Your task to perform on an android device: toggle location history Image 0: 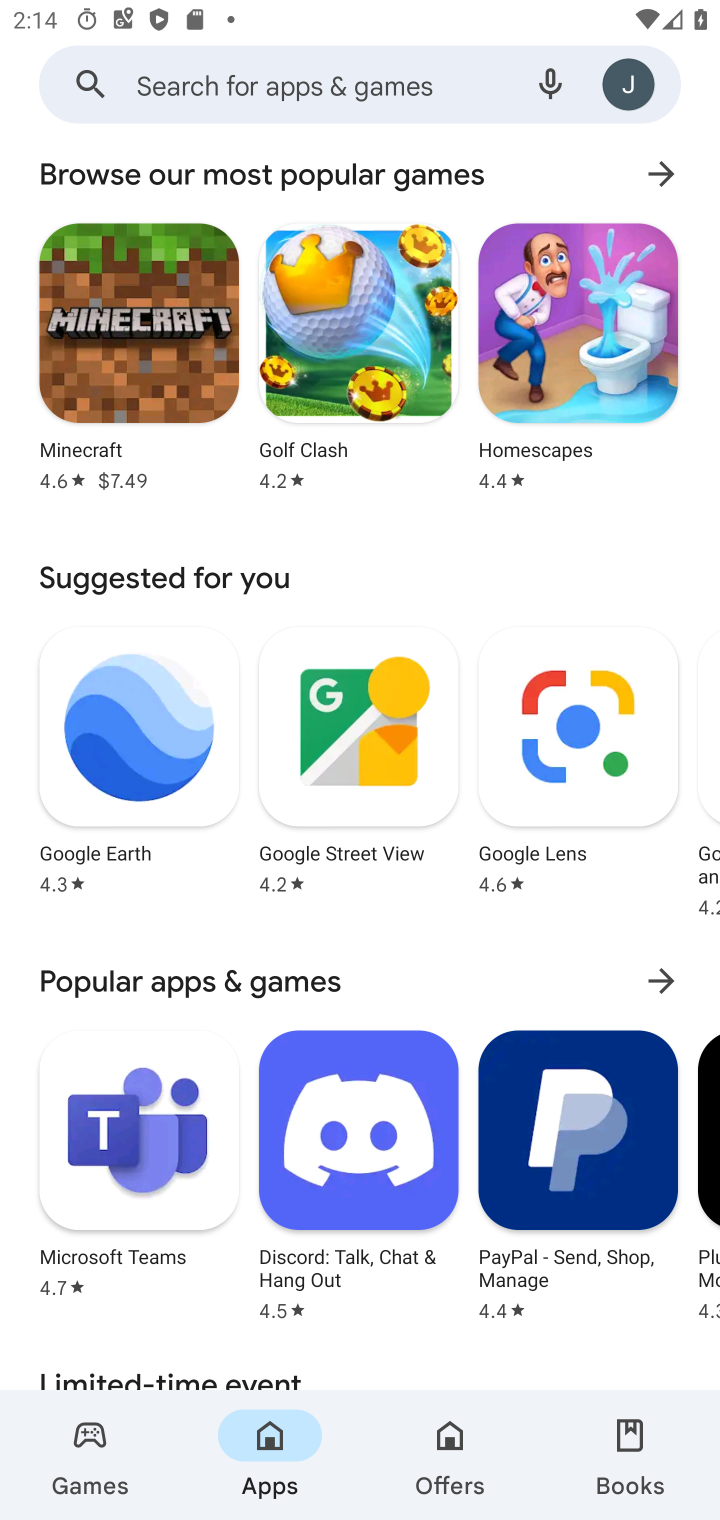
Step 0: press home button
Your task to perform on an android device: toggle location history Image 1: 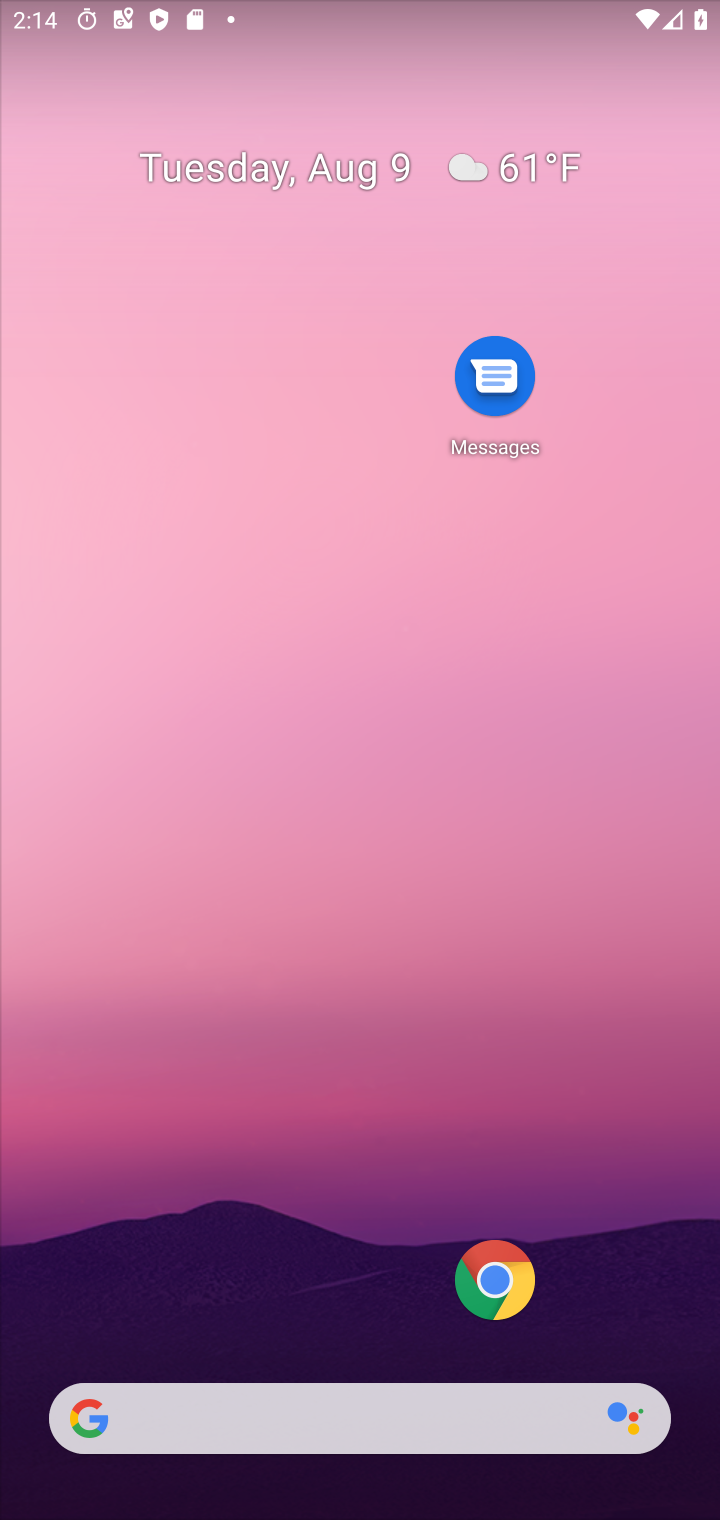
Step 1: drag from (388, 1161) to (451, 399)
Your task to perform on an android device: toggle location history Image 2: 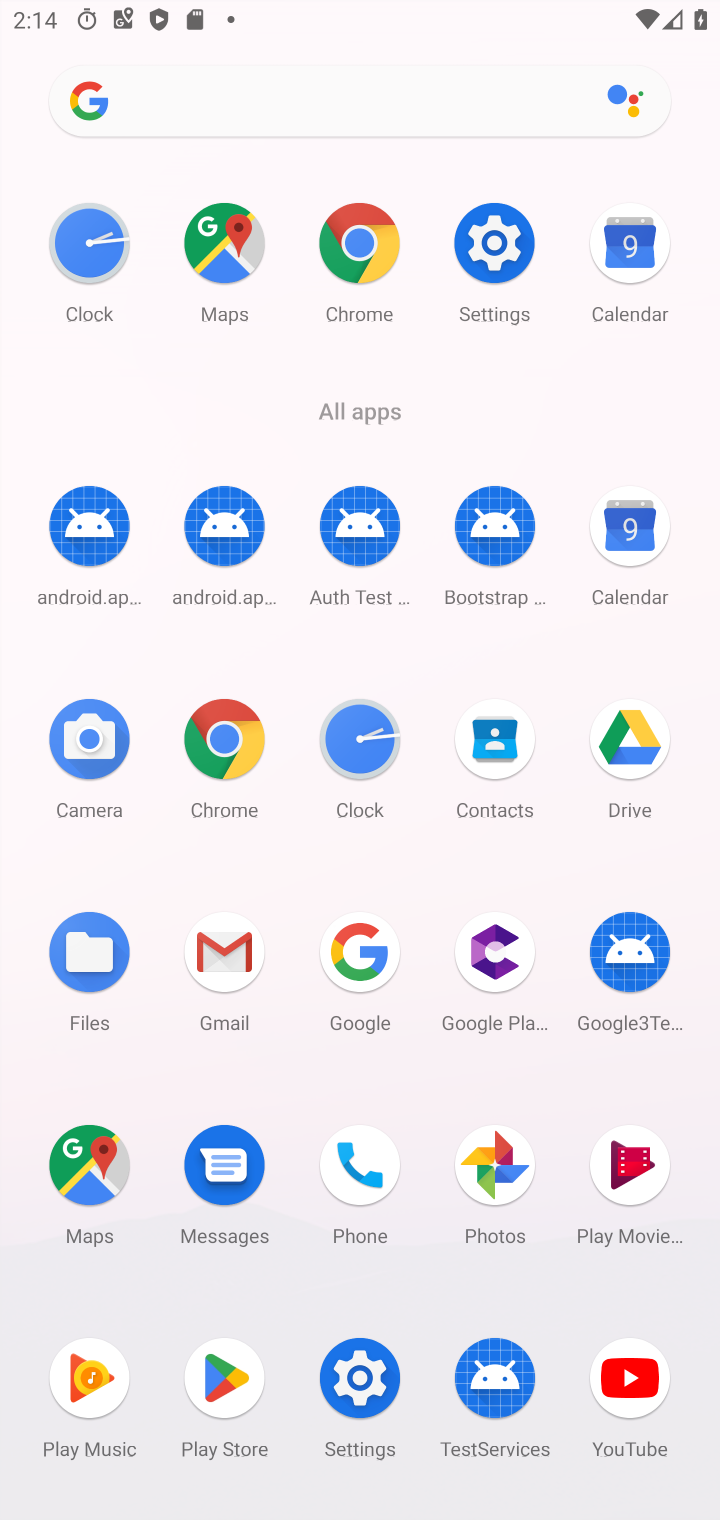
Step 2: click (222, 235)
Your task to perform on an android device: toggle location history Image 3: 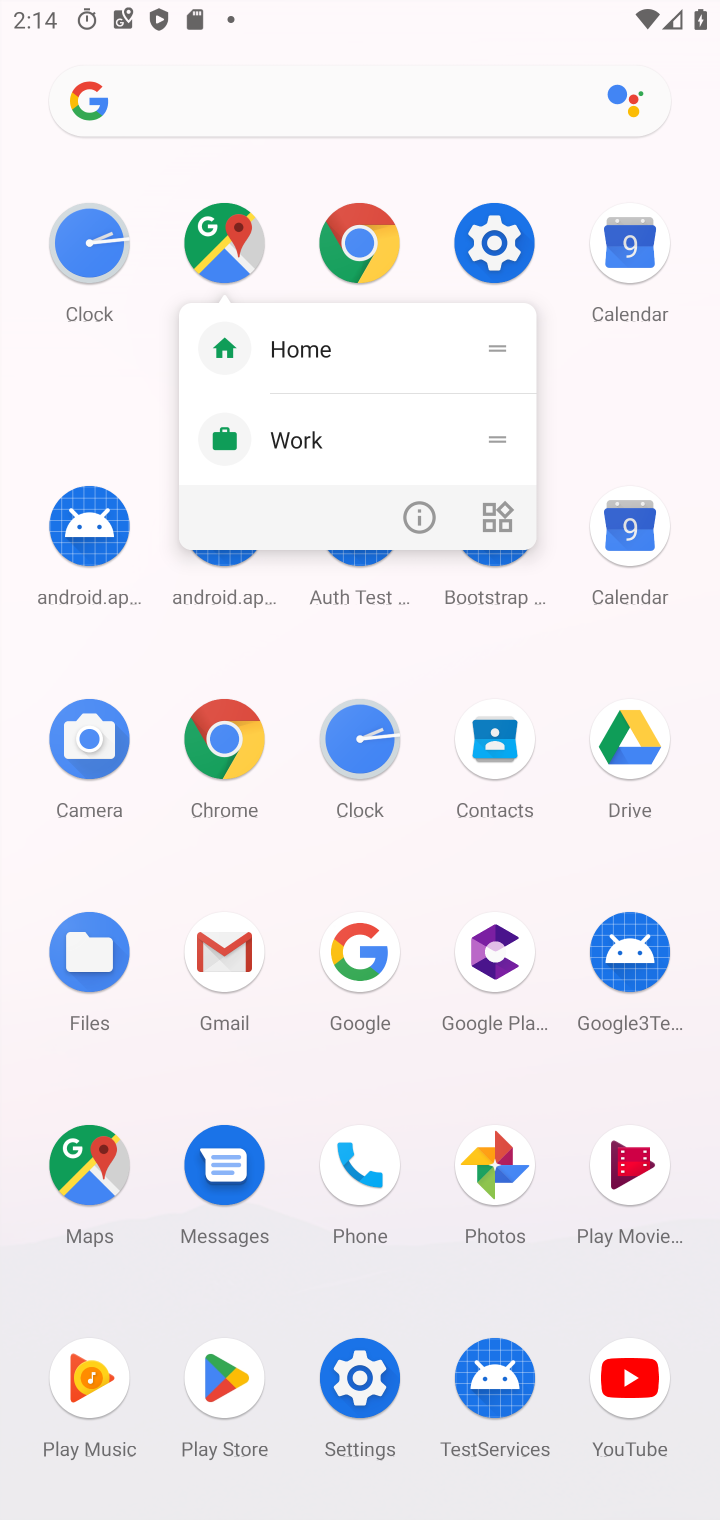
Step 3: click (222, 235)
Your task to perform on an android device: toggle location history Image 4: 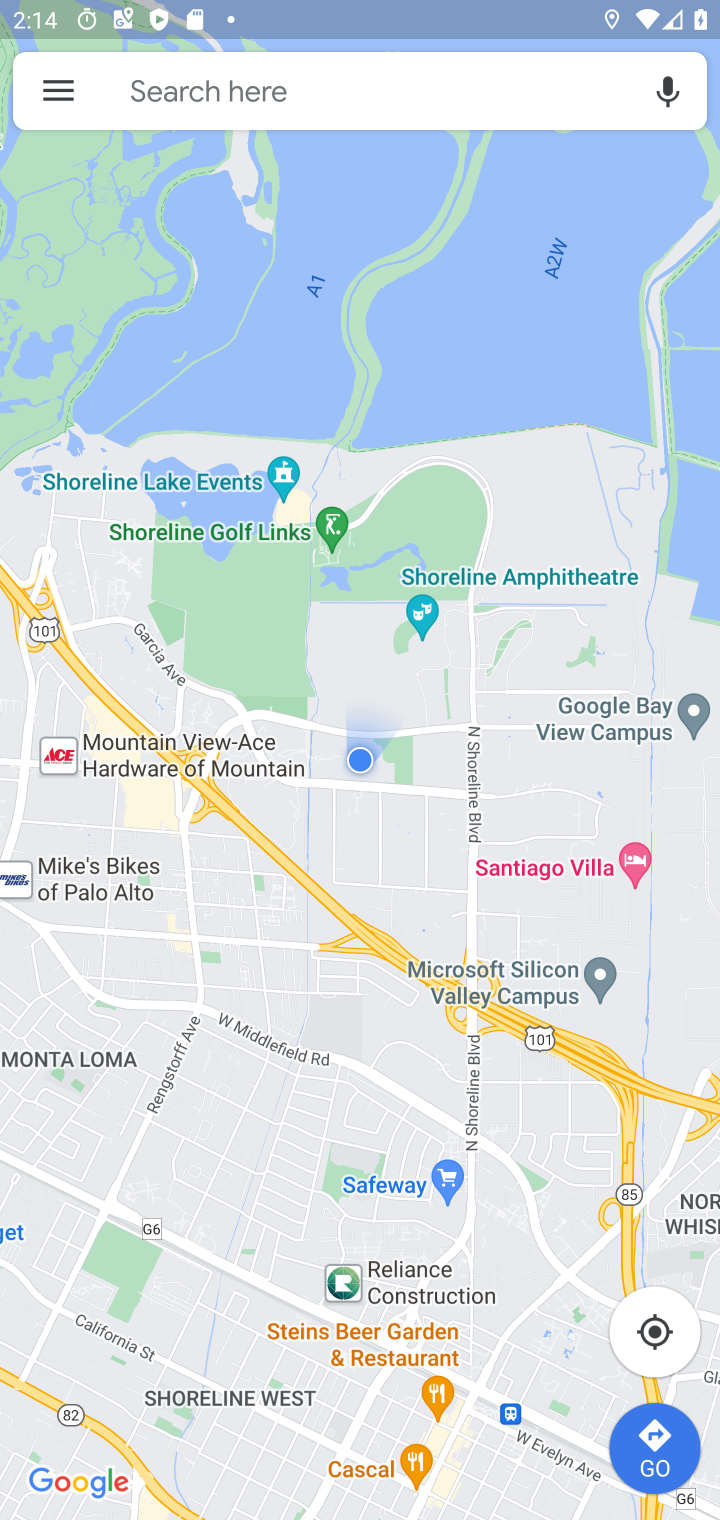
Step 4: click (69, 88)
Your task to perform on an android device: toggle location history Image 5: 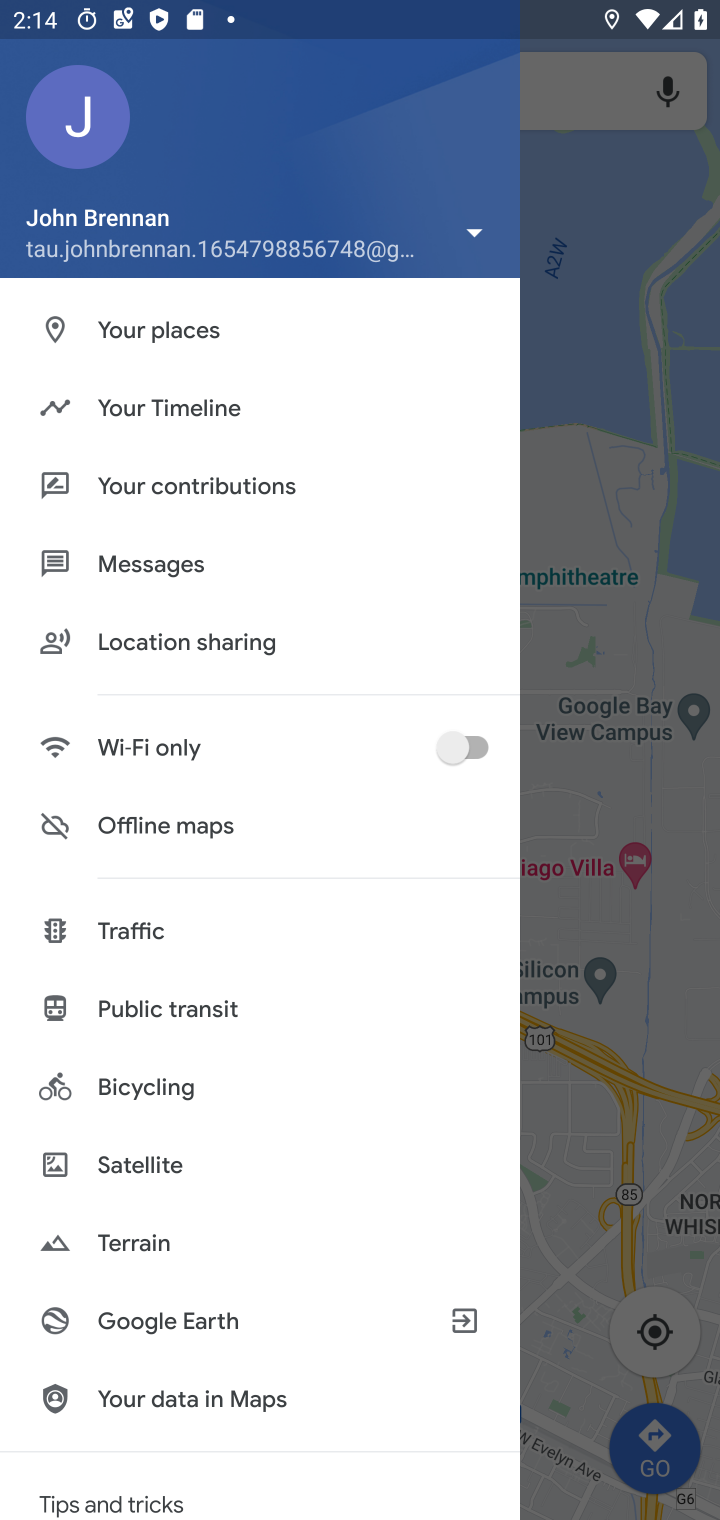
Step 5: click (205, 393)
Your task to perform on an android device: toggle location history Image 6: 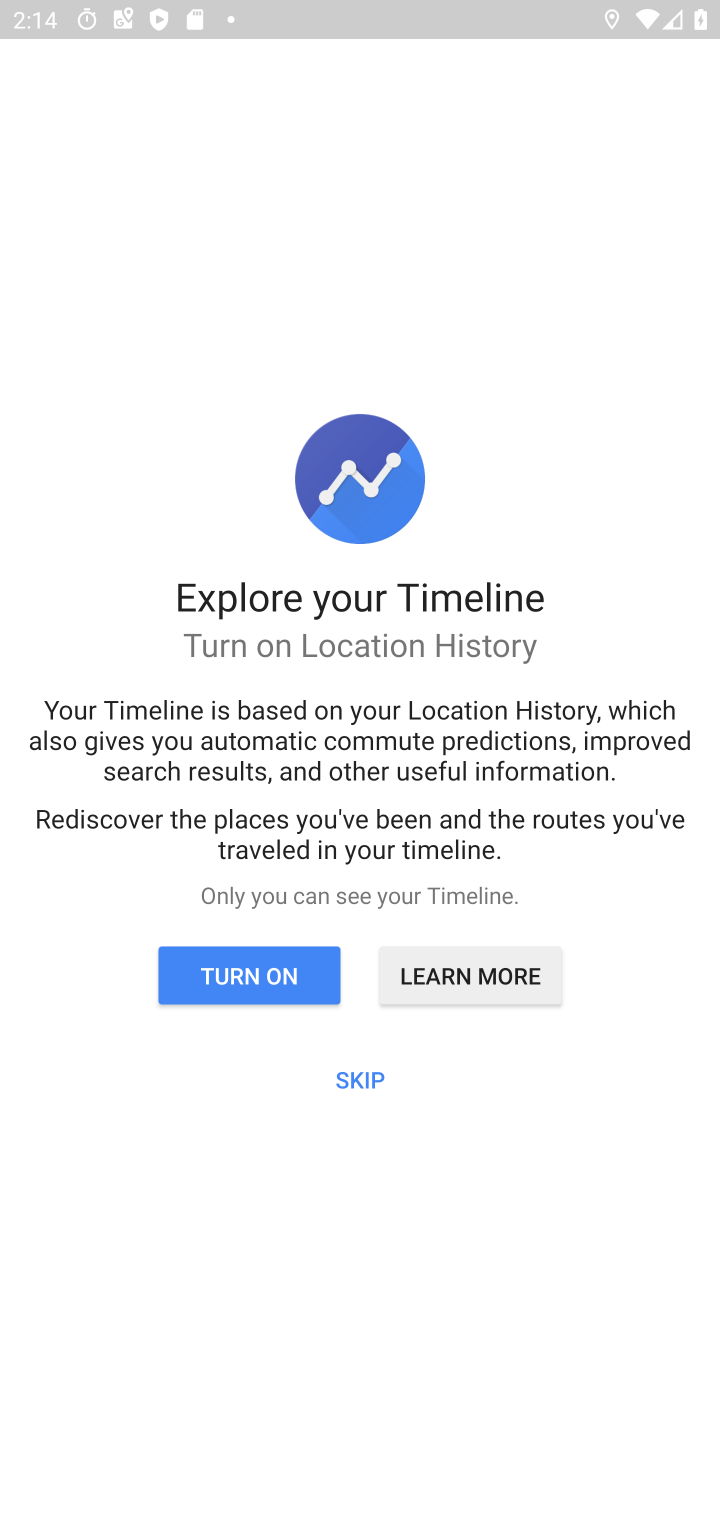
Step 6: click (343, 1055)
Your task to perform on an android device: toggle location history Image 7: 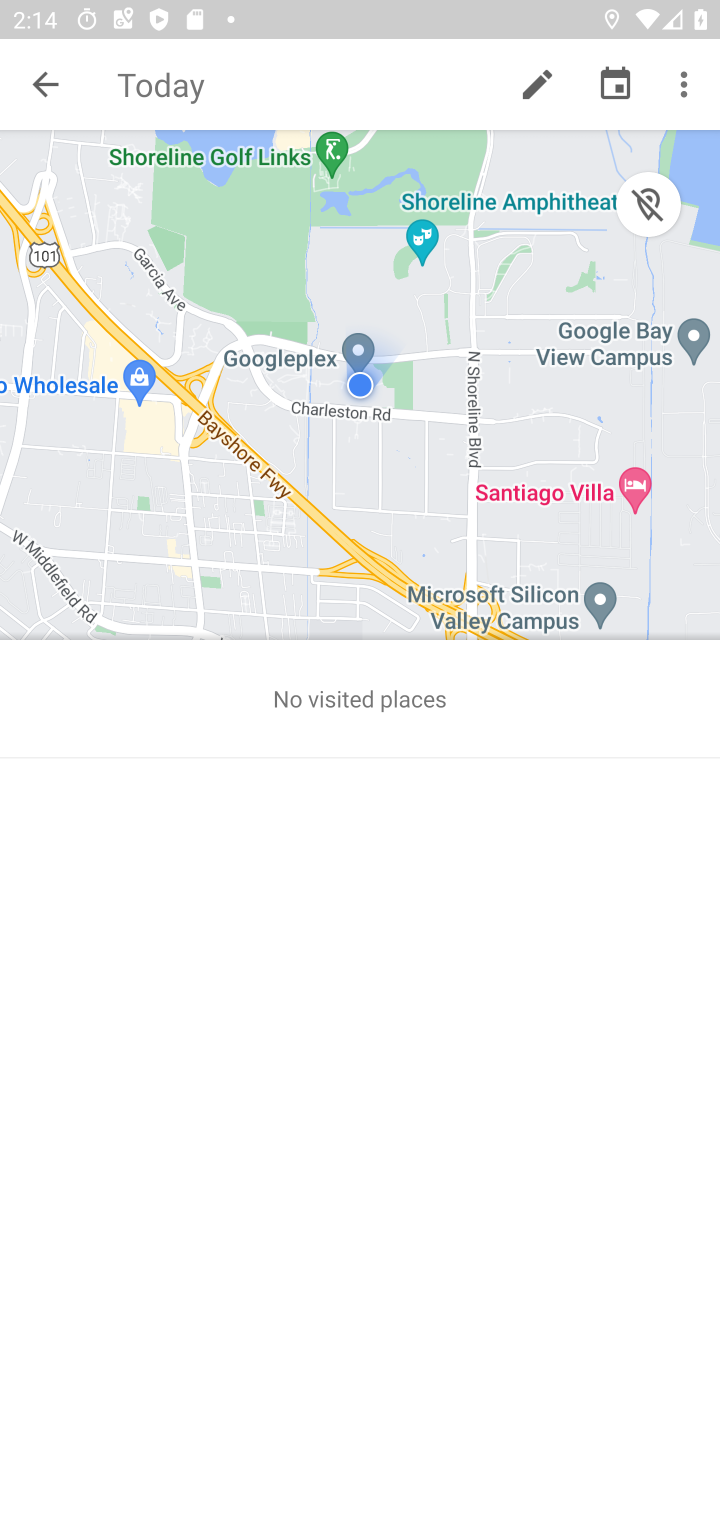
Step 7: click (682, 83)
Your task to perform on an android device: toggle location history Image 8: 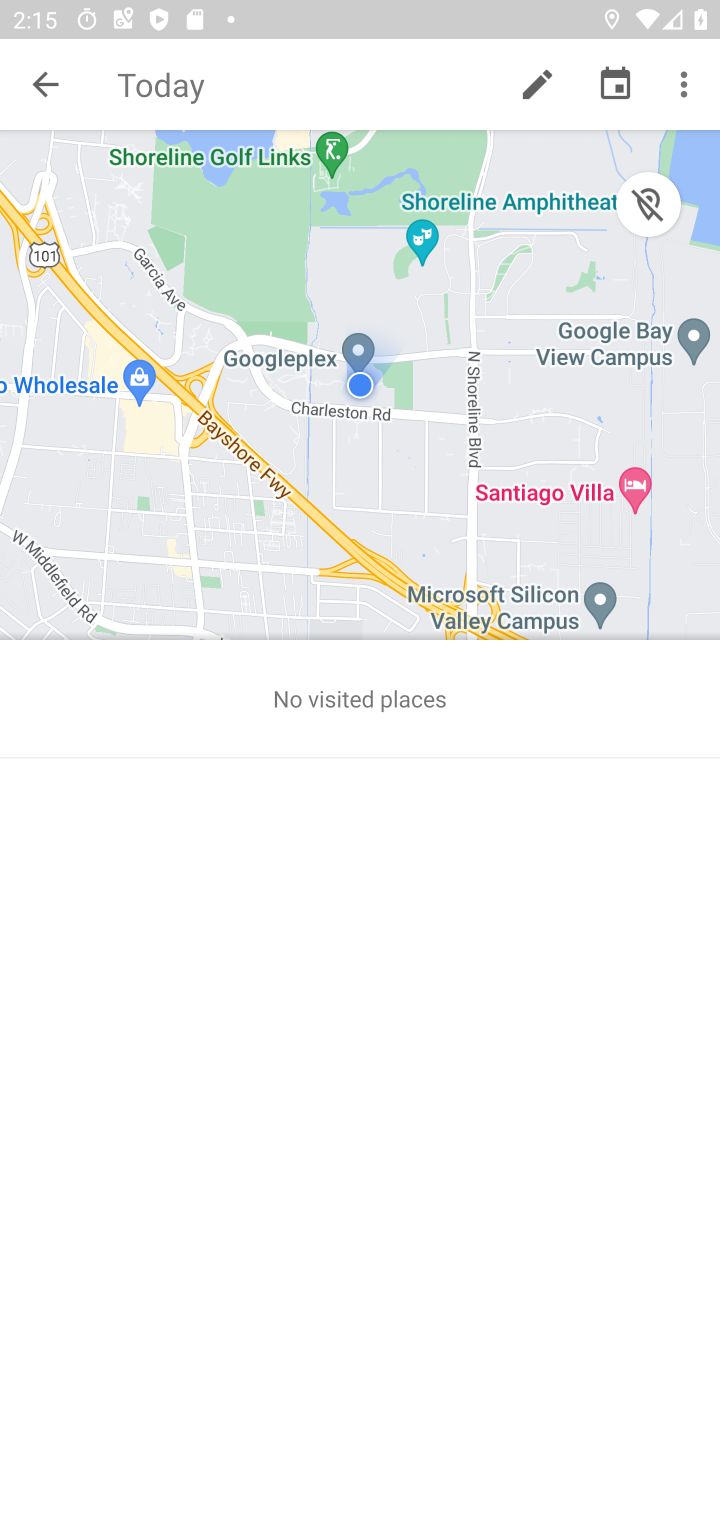
Step 8: click (680, 77)
Your task to perform on an android device: toggle location history Image 9: 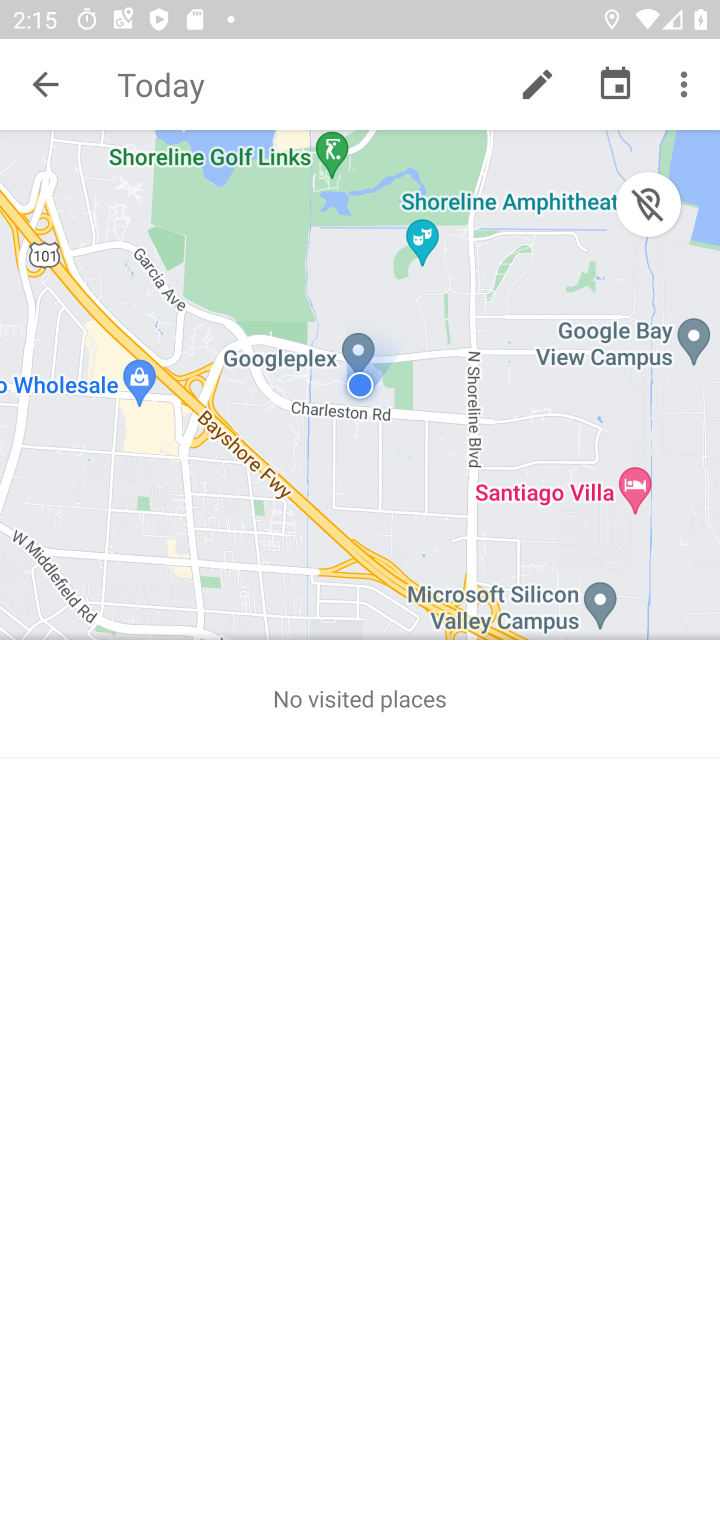
Step 9: click (686, 94)
Your task to perform on an android device: toggle location history Image 10: 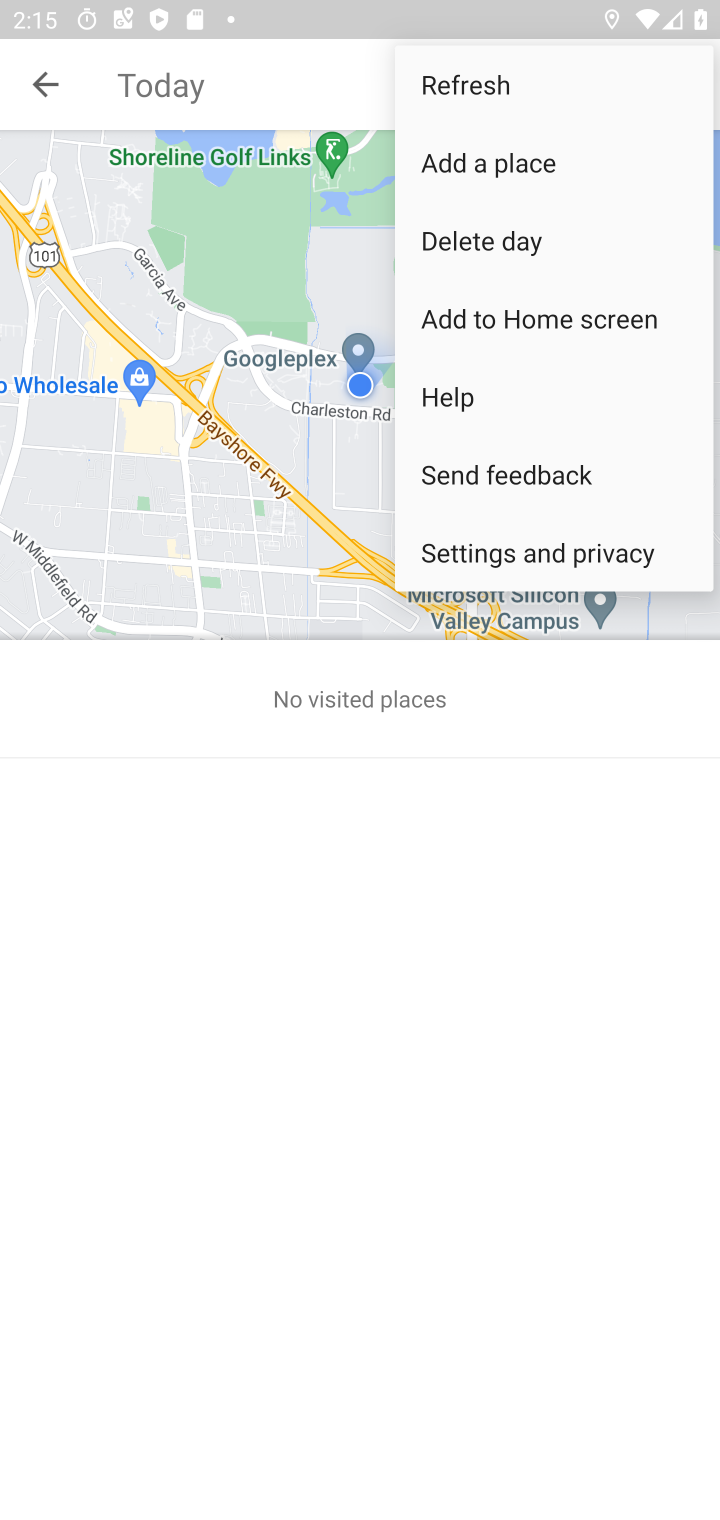
Step 10: click (531, 566)
Your task to perform on an android device: toggle location history Image 11: 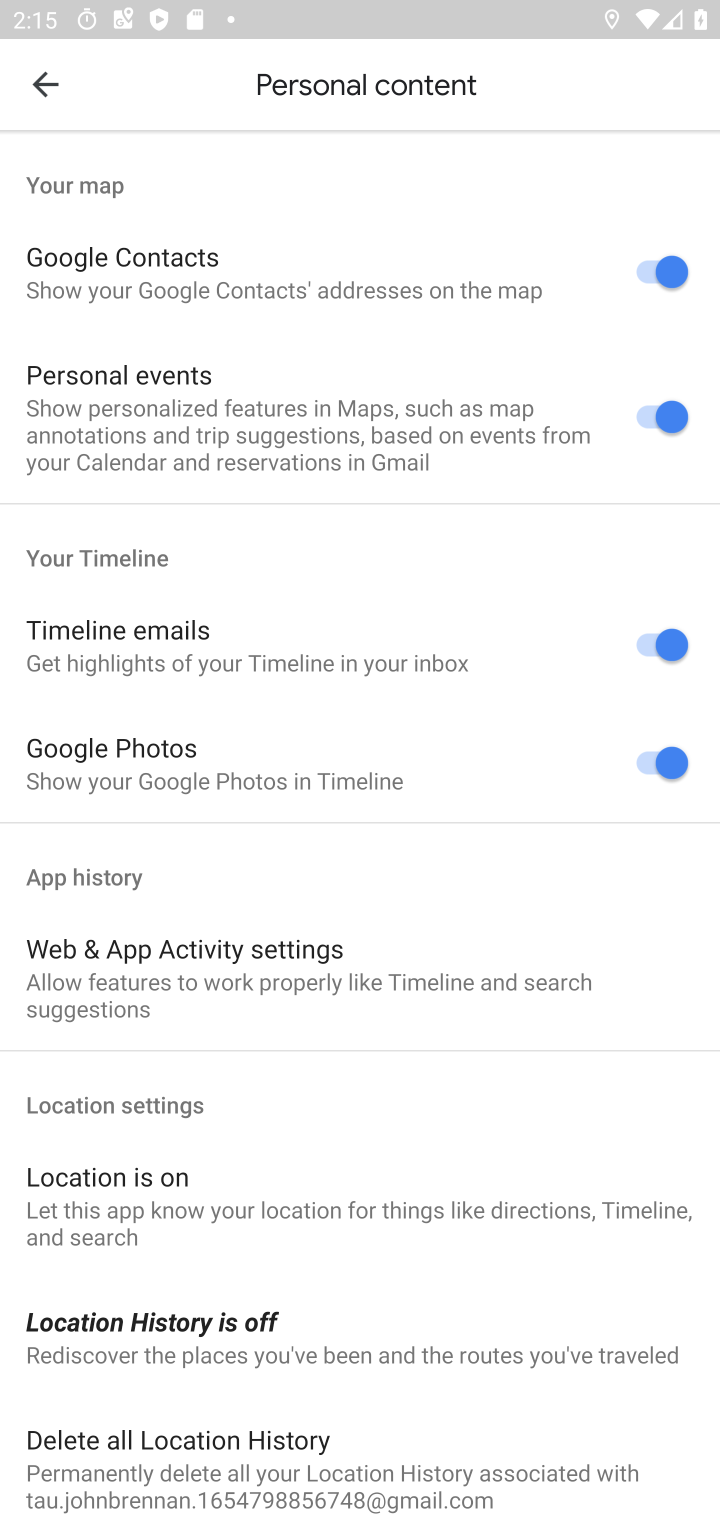
Step 11: drag from (348, 1266) to (472, 371)
Your task to perform on an android device: toggle location history Image 12: 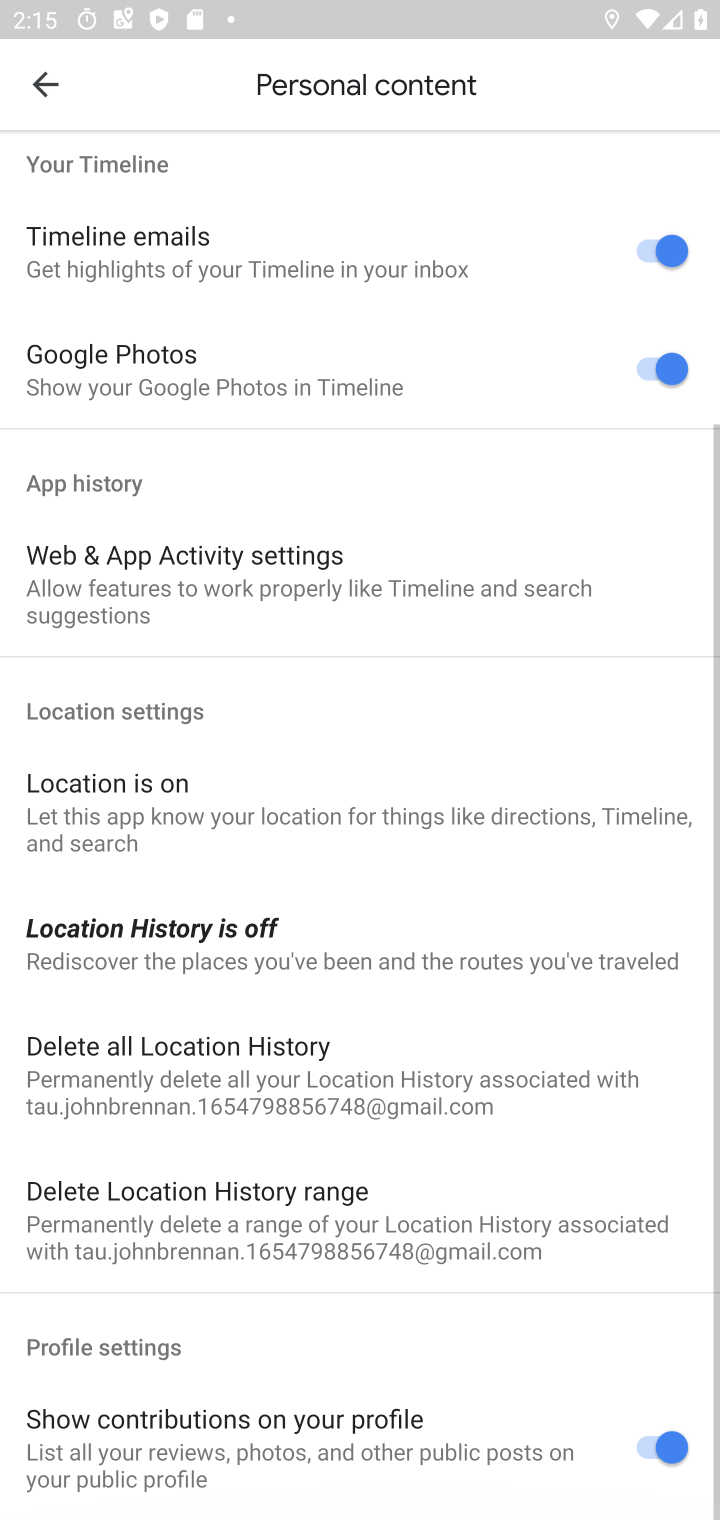
Step 12: click (243, 1030)
Your task to perform on an android device: toggle location history Image 13: 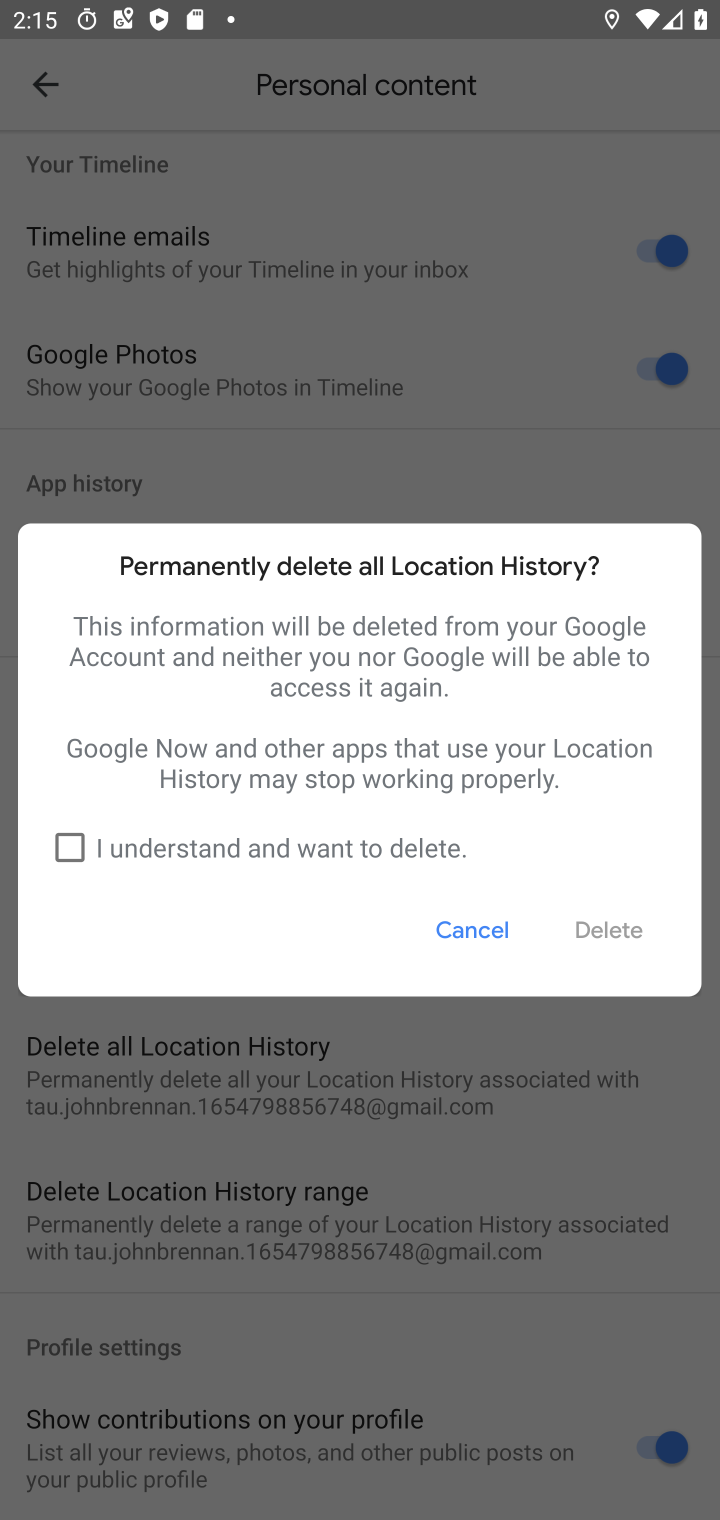
Step 13: click (459, 929)
Your task to perform on an android device: toggle location history Image 14: 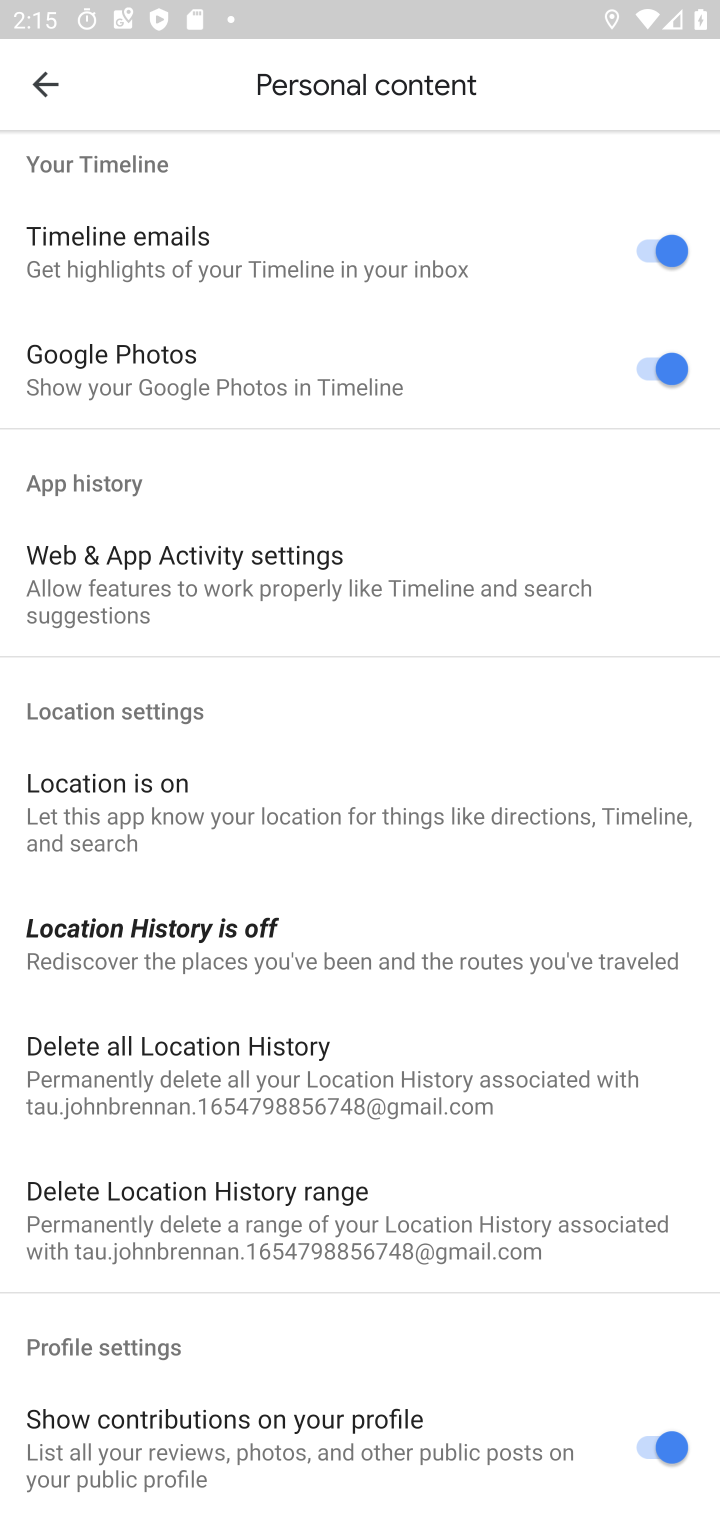
Step 14: click (243, 956)
Your task to perform on an android device: toggle location history Image 15: 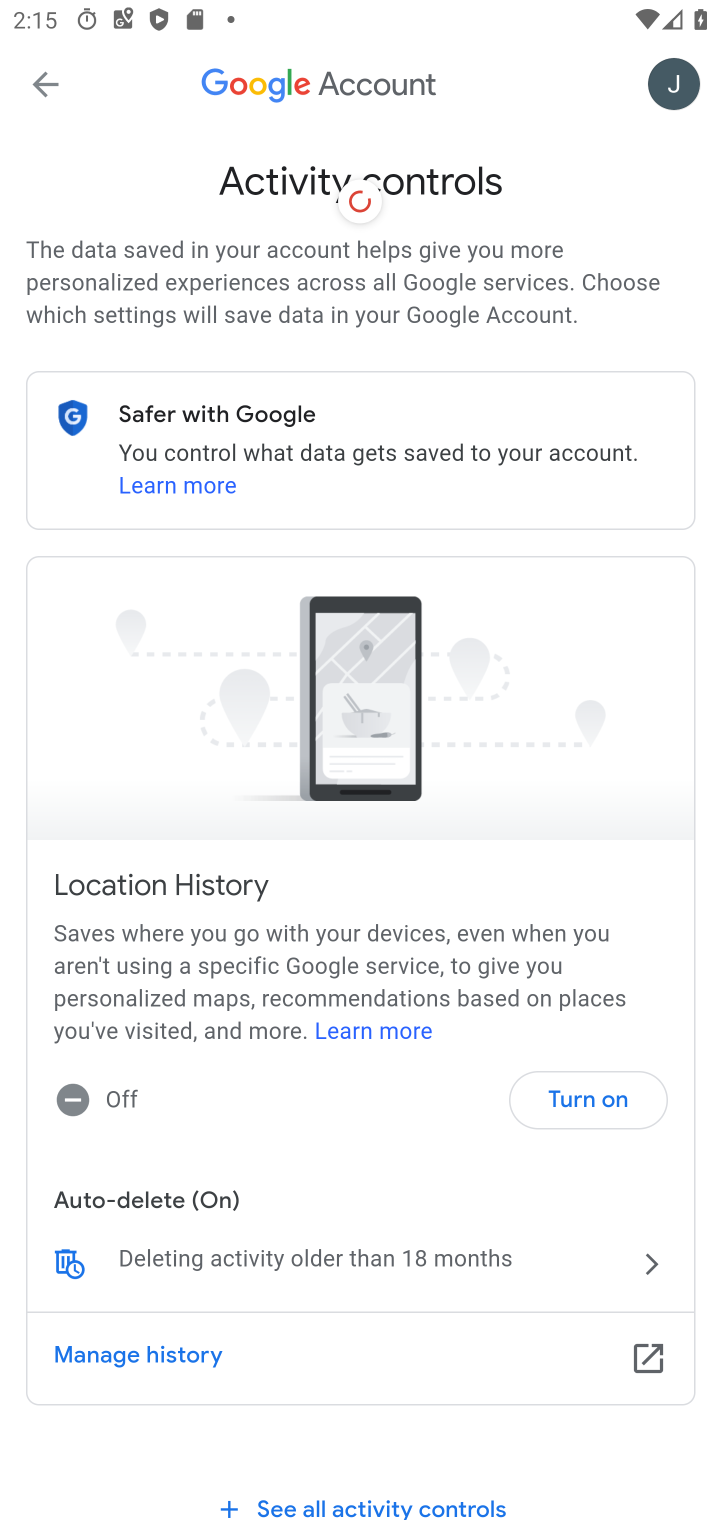
Step 15: click (586, 1100)
Your task to perform on an android device: toggle location history Image 16: 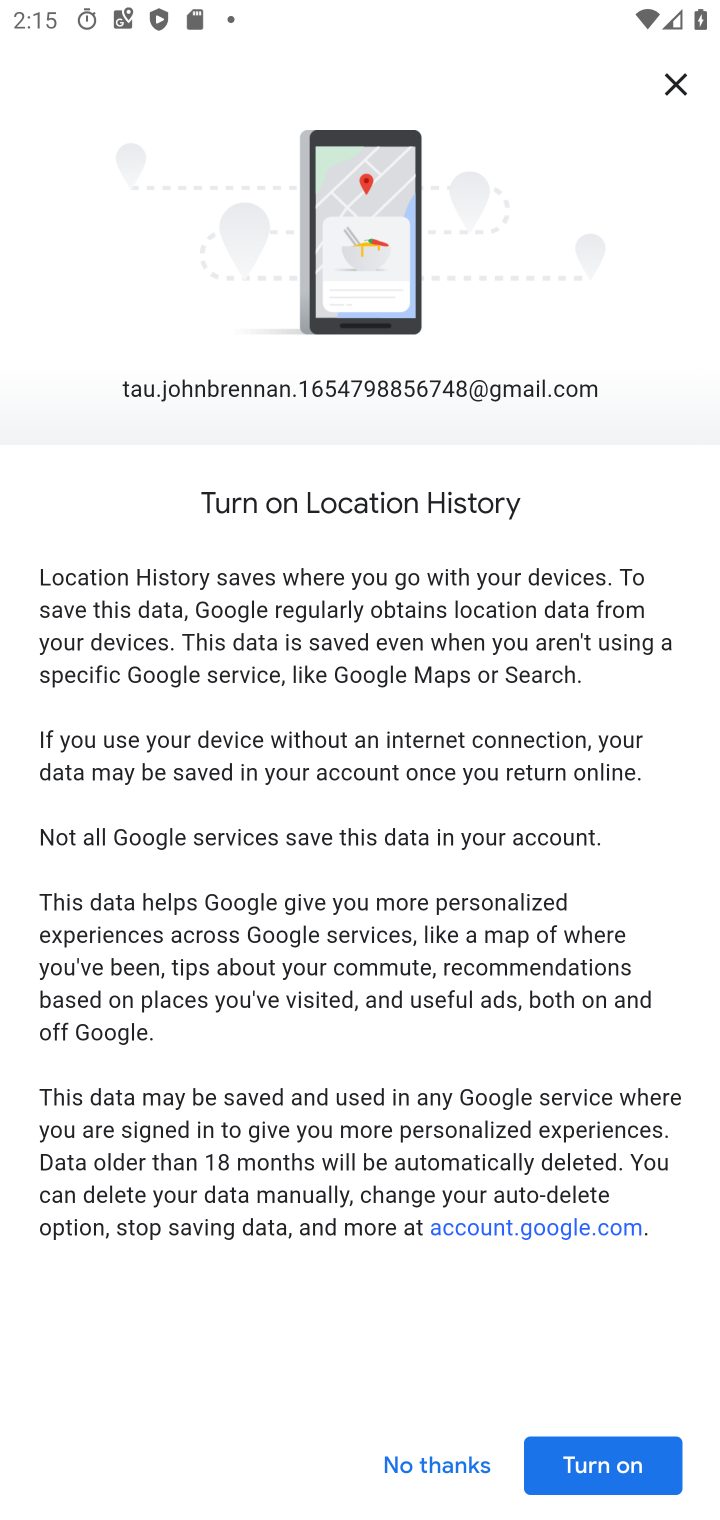
Step 16: drag from (494, 1117) to (614, 452)
Your task to perform on an android device: toggle location history Image 17: 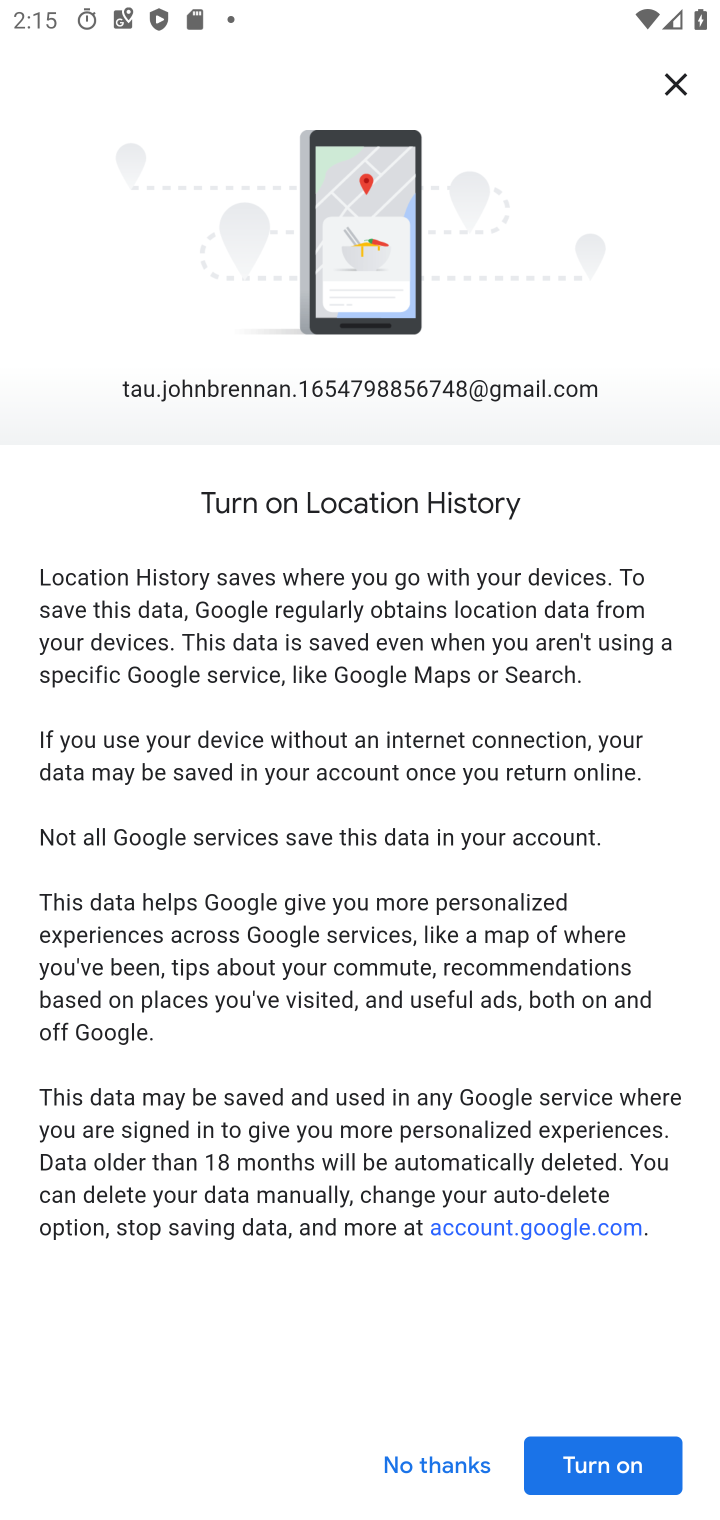
Step 17: click (604, 1463)
Your task to perform on an android device: toggle location history Image 18: 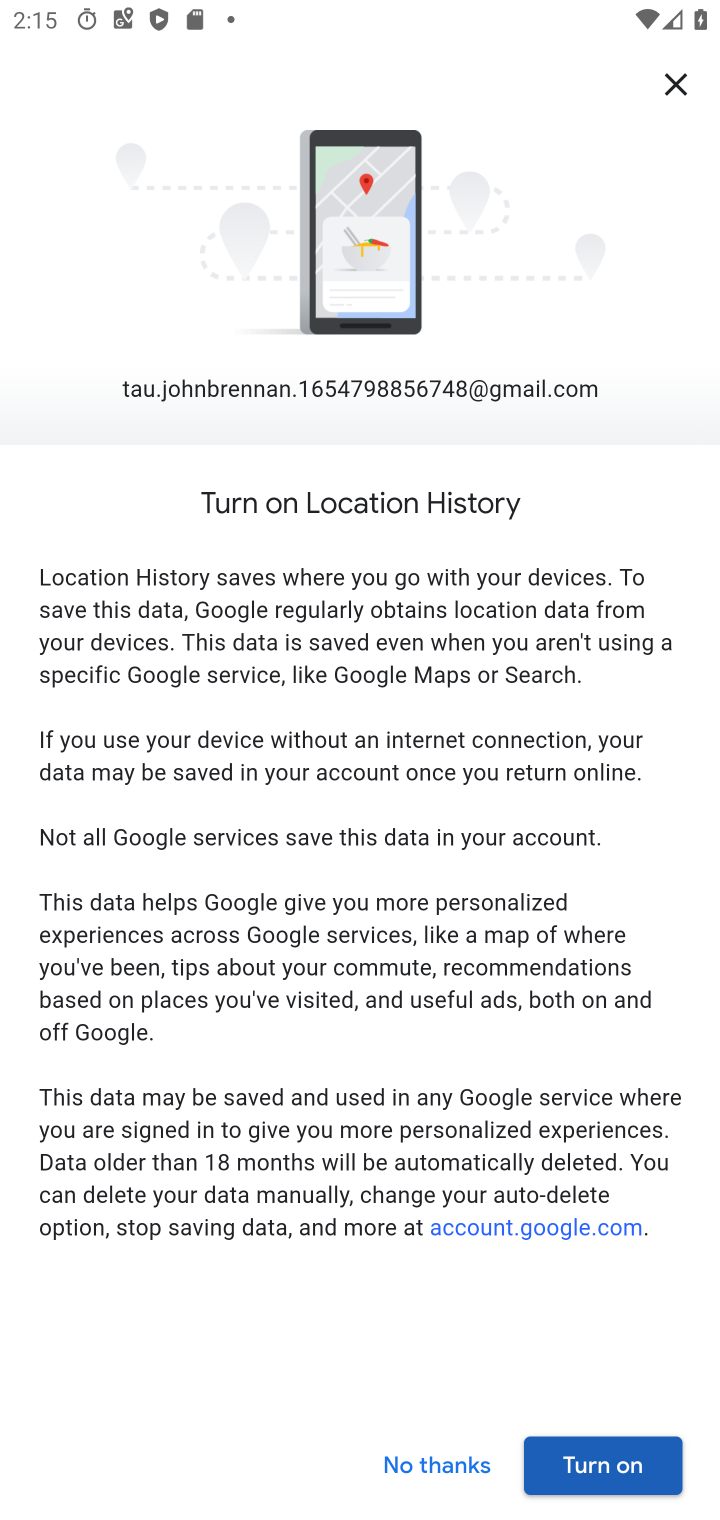
Step 18: click (623, 1458)
Your task to perform on an android device: toggle location history Image 19: 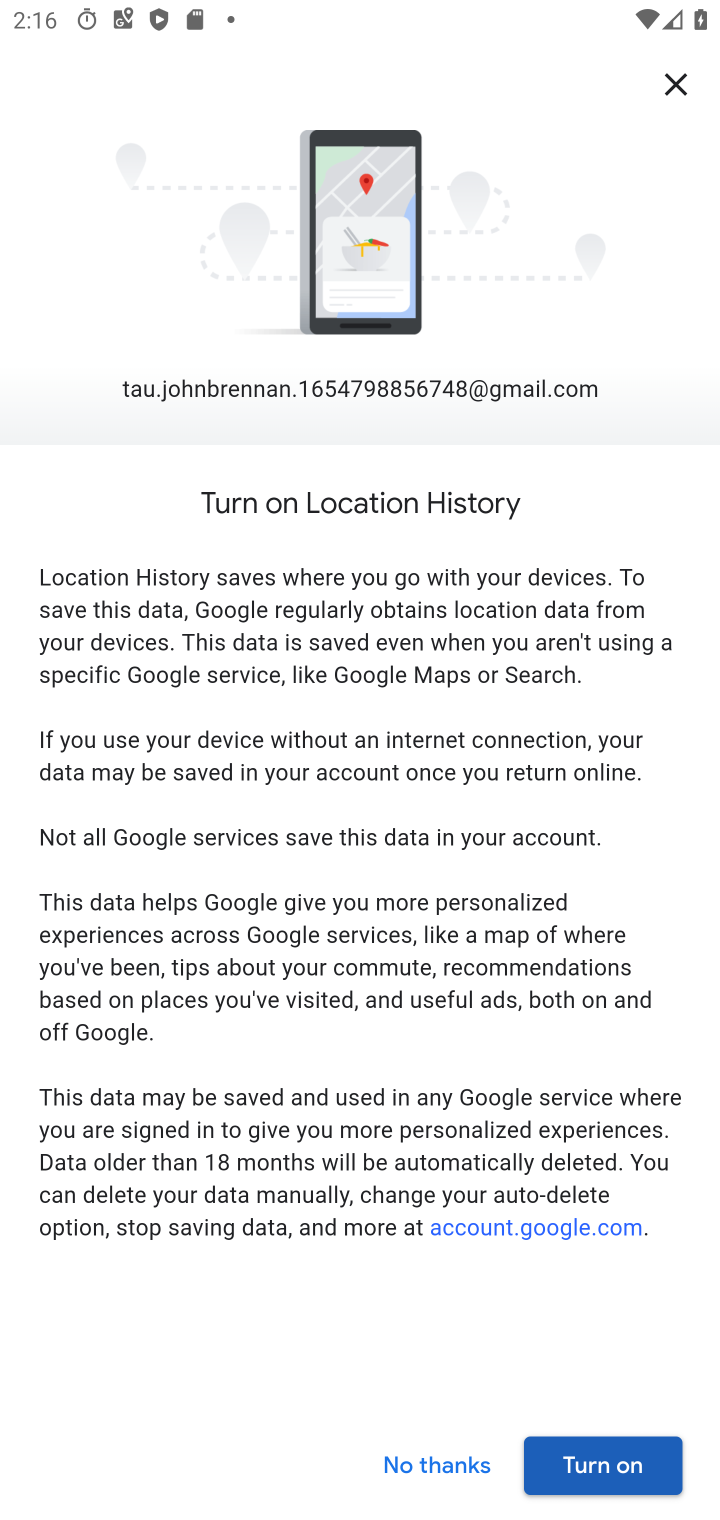
Step 19: click (623, 1456)
Your task to perform on an android device: toggle location history Image 20: 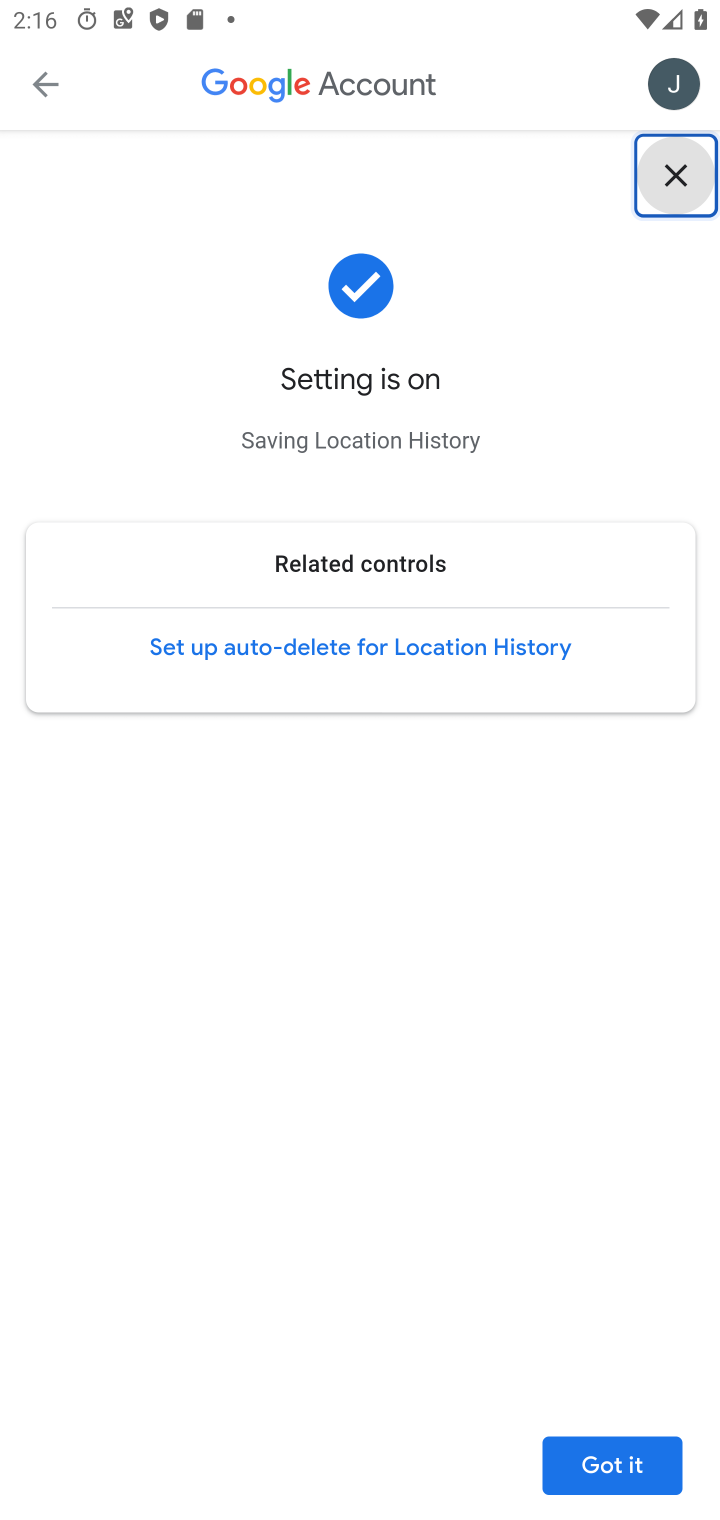
Step 20: click (608, 1450)
Your task to perform on an android device: toggle location history Image 21: 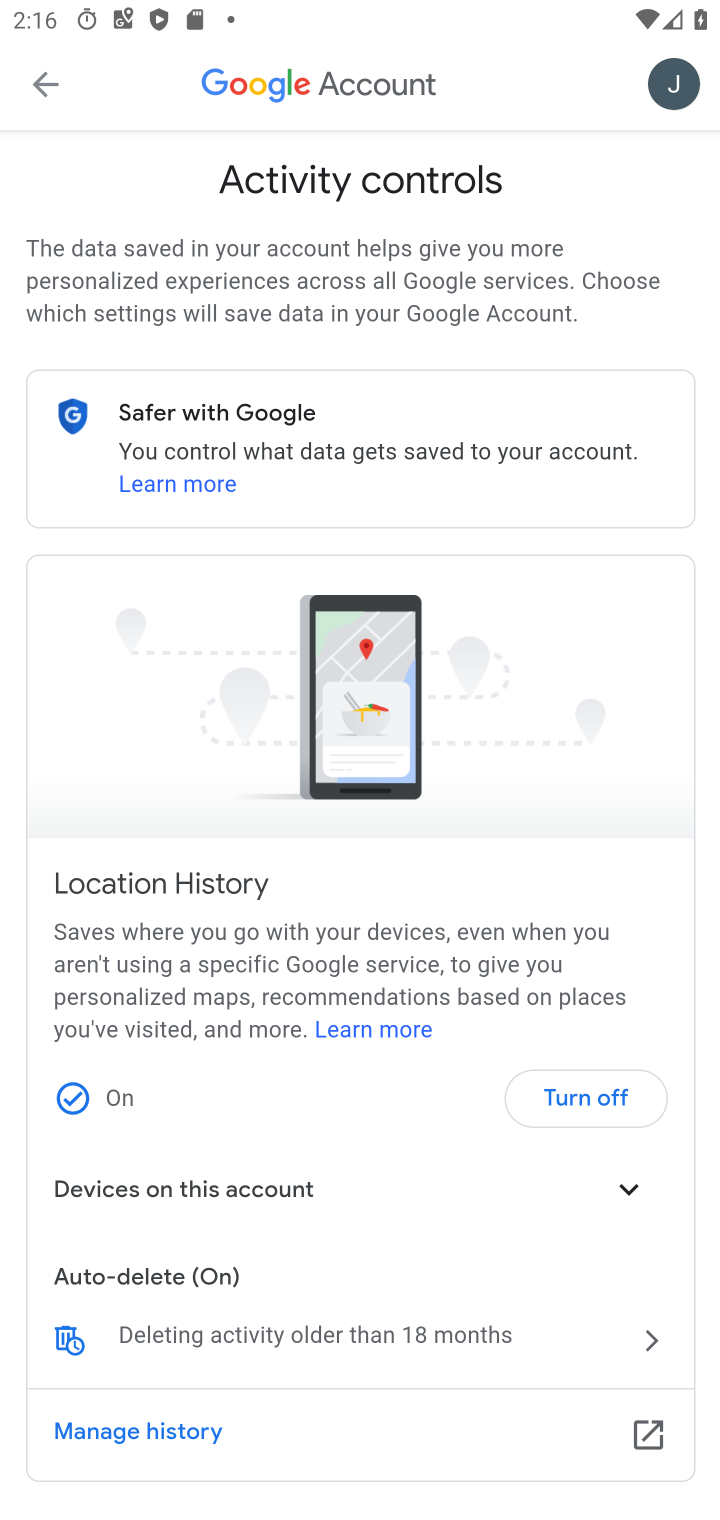
Step 21: task complete